Your task to perform on an android device: visit the assistant section in the google photos Image 0: 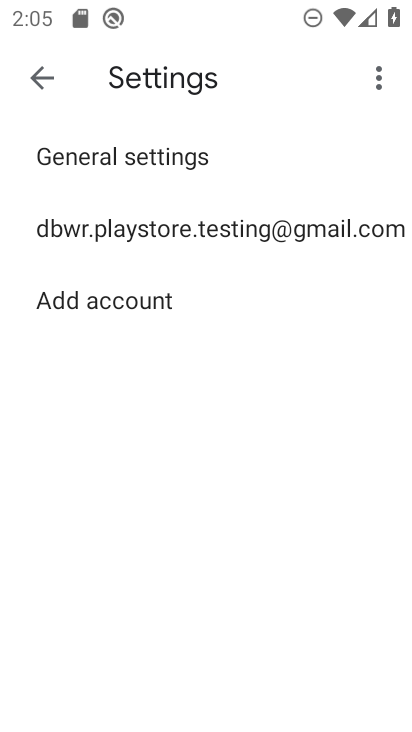
Step 0: drag from (313, 463) to (306, 3)
Your task to perform on an android device: visit the assistant section in the google photos Image 1: 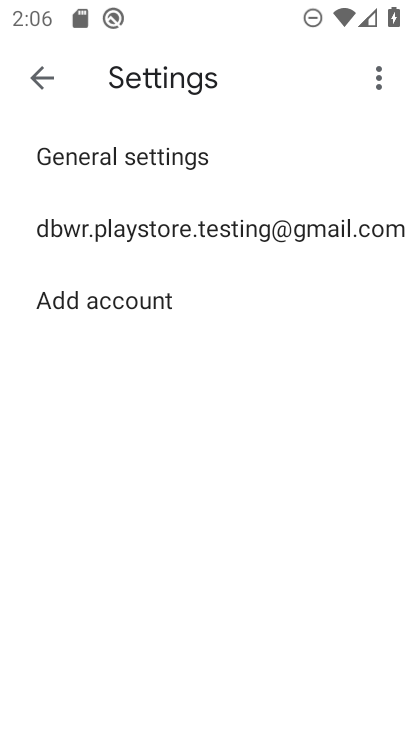
Step 1: press home button
Your task to perform on an android device: visit the assistant section in the google photos Image 2: 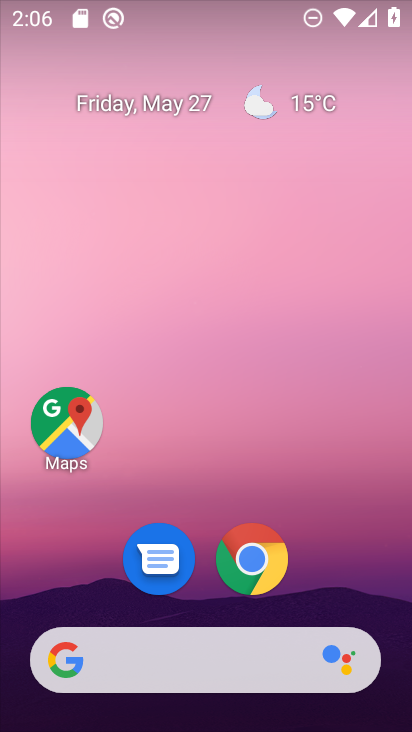
Step 2: drag from (361, 312) to (384, 72)
Your task to perform on an android device: visit the assistant section in the google photos Image 3: 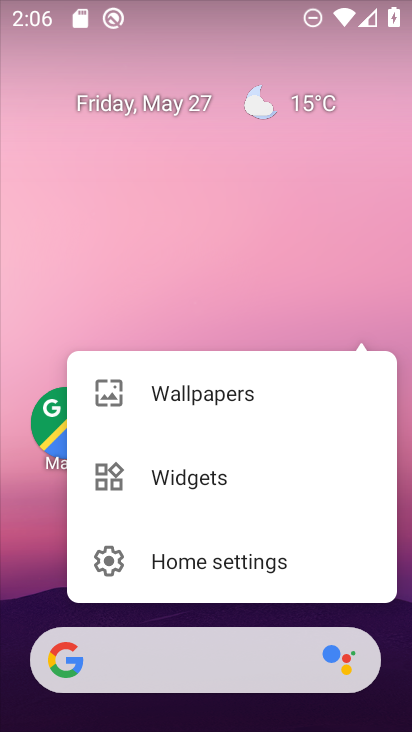
Step 3: click (280, 283)
Your task to perform on an android device: visit the assistant section in the google photos Image 4: 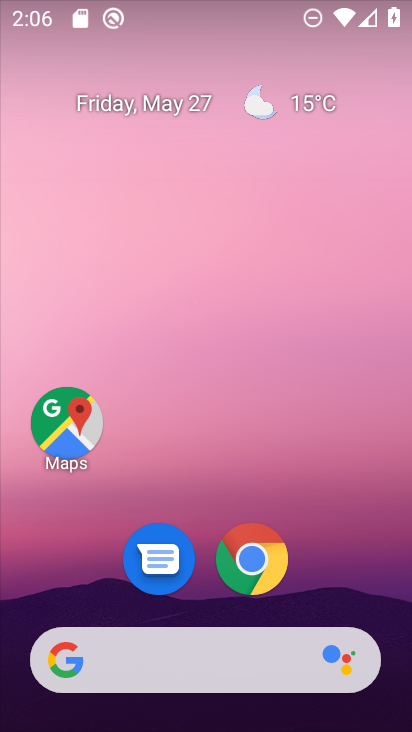
Step 4: drag from (275, 539) to (337, 88)
Your task to perform on an android device: visit the assistant section in the google photos Image 5: 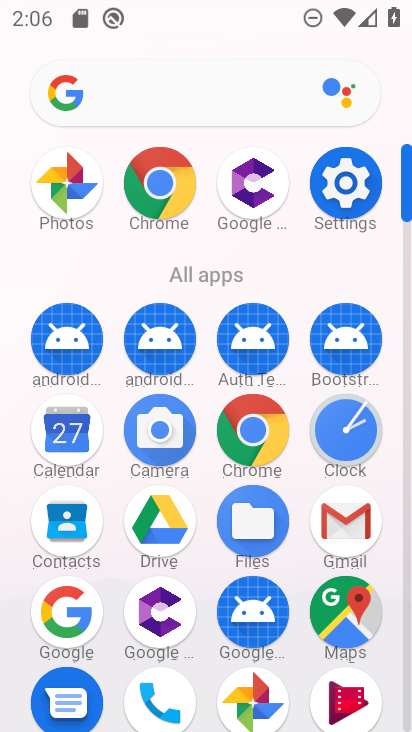
Step 5: click (252, 703)
Your task to perform on an android device: visit the assistant section in the google photos Image 6: 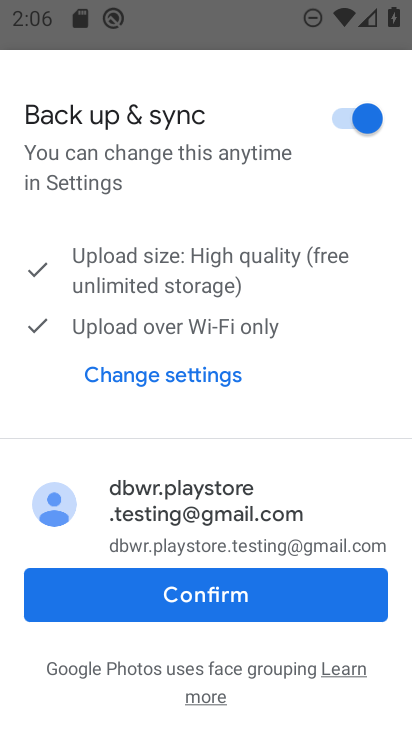
Step 6: click (288, 597)
Your task to perform on an android device: visit the assistant section in the google photos Image 7: 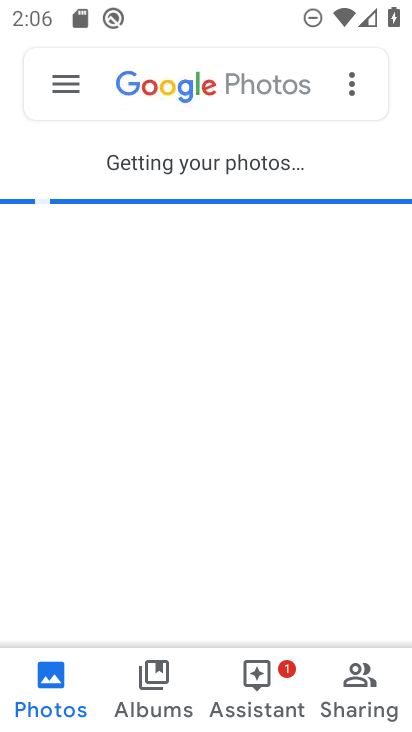
Step 7: click (262, 682)
Your task to perform on an android device: visit the assistant section in the google photos Image 8: 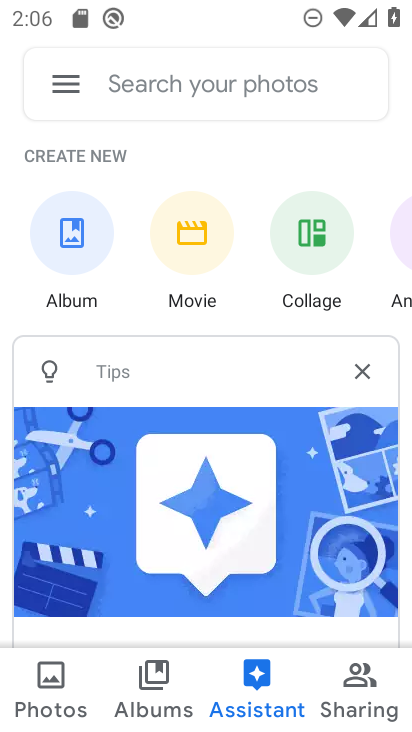
Step 8: task complete